Your task to perform on an android device: Open wifi settings Image 0: 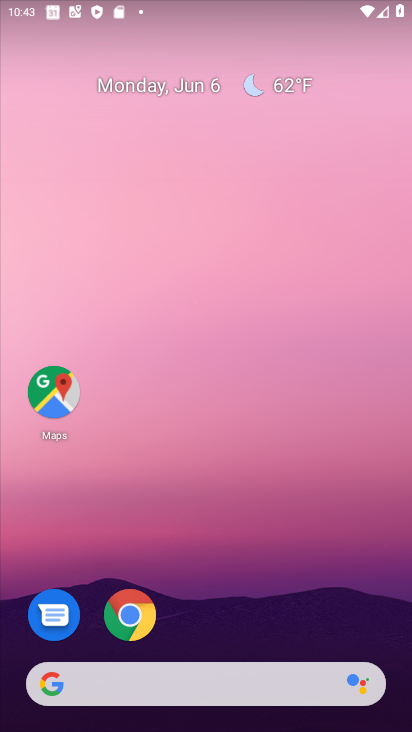
Step 0: drag from (200, 720) to (82, 39)
Your task to perform on an android device: Open wifi settings Image 1: 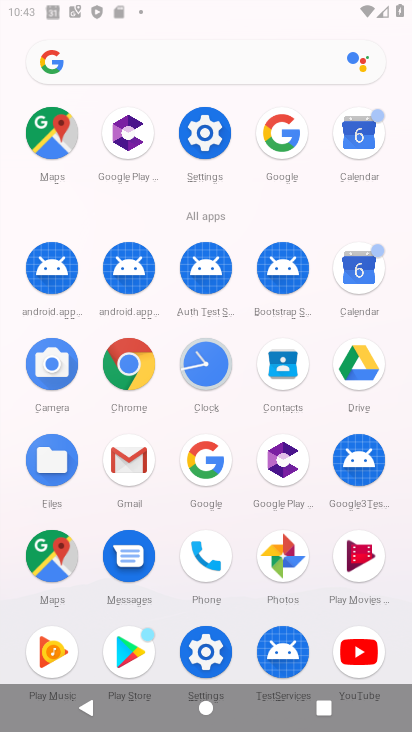
Step 1: drag from (206, 544) to (148, 116)
Your task to perform on an android device: Open wifi settings Image 2: 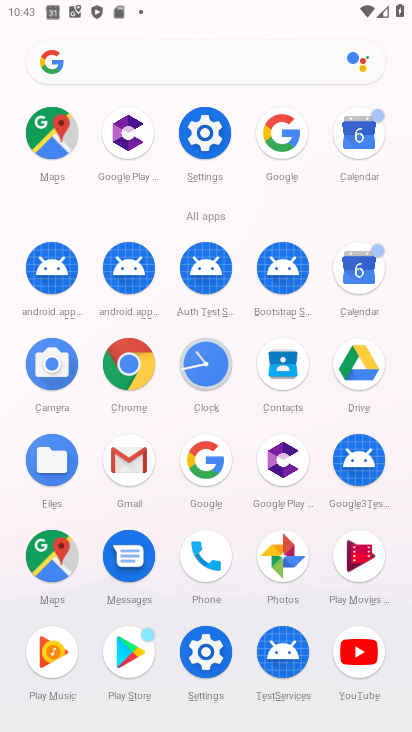
Step 2: click (212, 135)
Your task to perform on an android device: Open wifi settings Image 3: 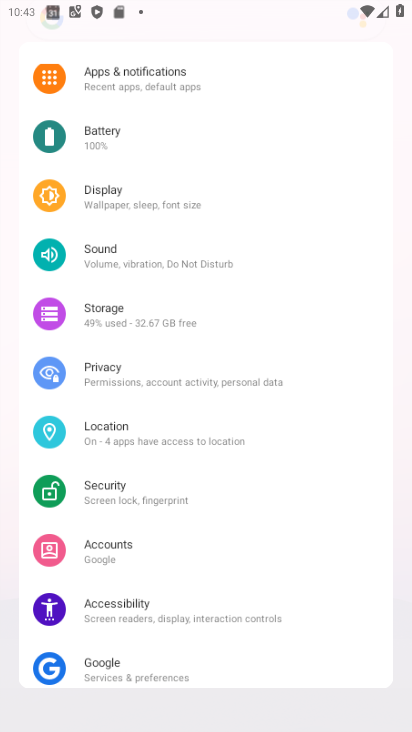
Step 3: click (217, 131)
Your task to perform on an android device: Open wifi settings Image 4: 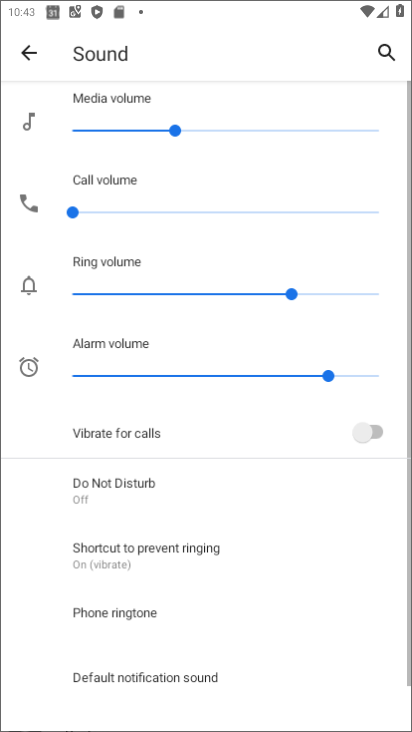
Step 4: drag from (171, 109) to (214, 577)
Your task to perform on an android device: Open wifi settings Image 5: 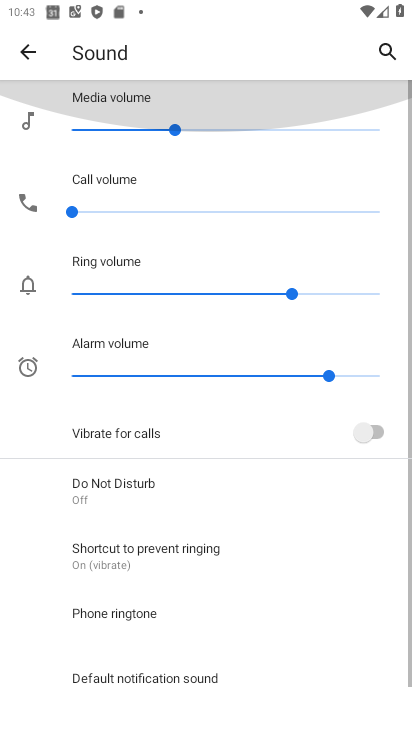
Step 5: drag from (169, 137) to (231, 544)
Your task to perform on an android device: Open wifi settings Image 6: 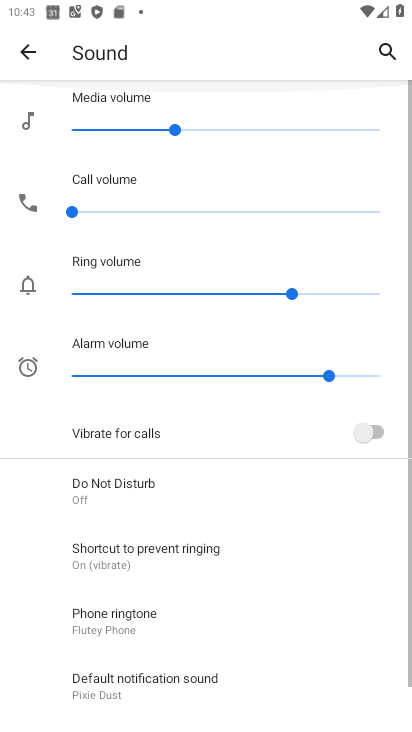
Step 6: click (4, 42)
Your task to perform on an android device: Open wifi settings Image 7: 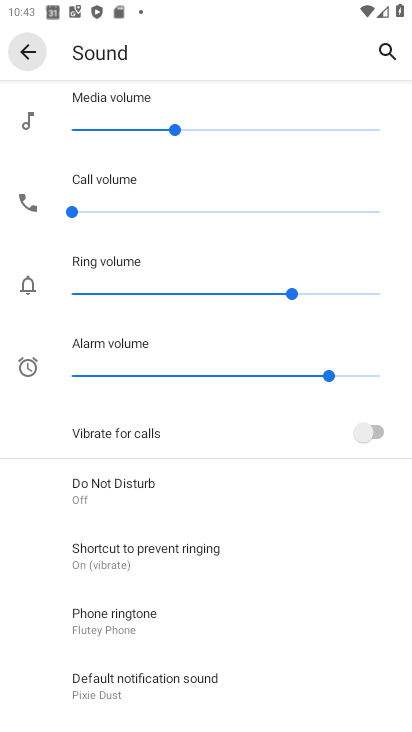
Step 7: click (13, 50)
Your task to perform on an android device: Open wifi settings Image 8: 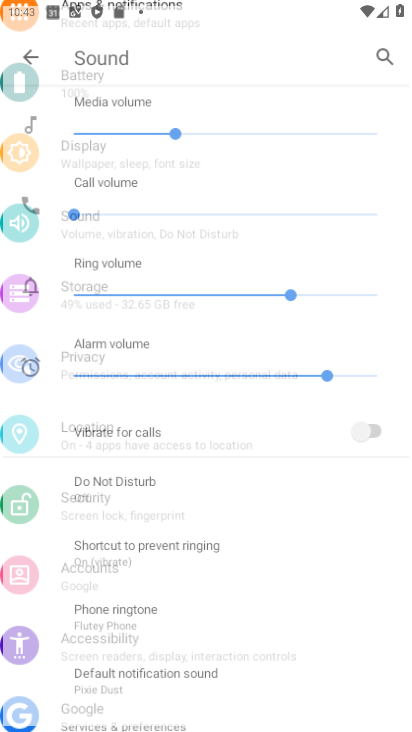
Step 8: click (17, 51)
Your task to perform on an android device: Open wifi settings Image 9: 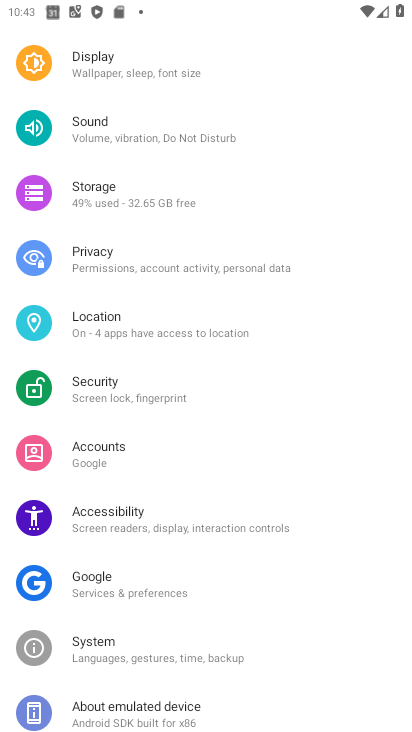
Step 9: click (17, 51)
Your task to perform on an android device: Open wifi settings Image 10: 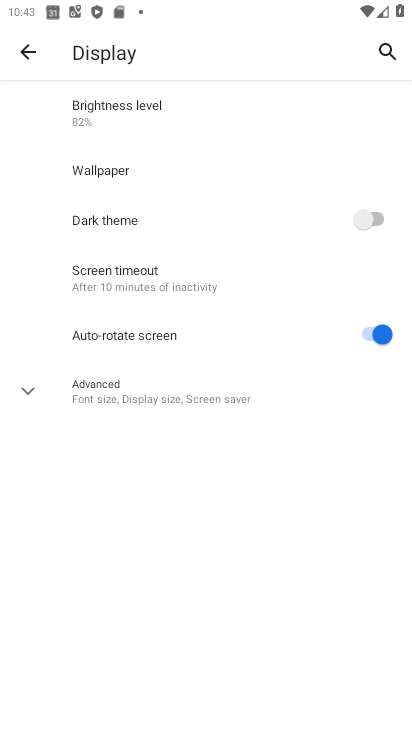
Step 10: click (22, 50)
Your task to perform on an android device: Open wifi settings Image 11: 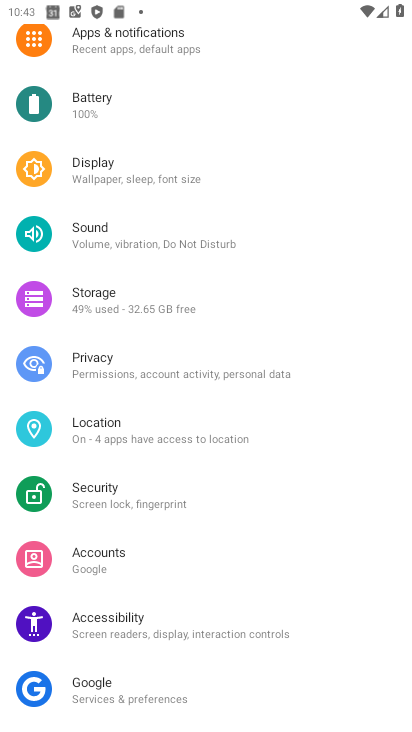
Step 11: drag from (82, 89) to (151, 310)
Your task to perform on an android device: Open wifi settings Image 12: 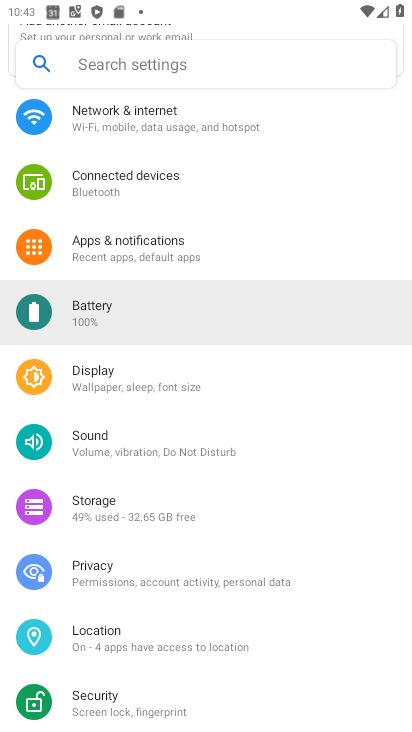
Step 12: drag from (153, 81) to (152, 425)
Your task to perform on an android device: Open wifi settings Image 13: 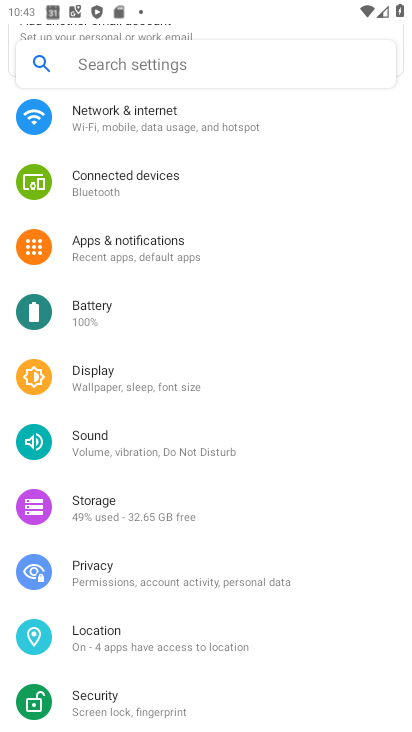
Step 13: click (138, 130)
Your task to perform on an android device: Open wifi settings Image 14: 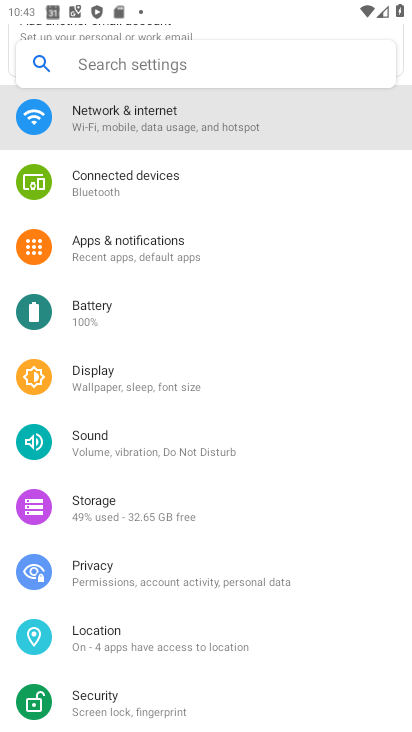
Step 14: click (138, 129)
Your task to perform on an android device: Open wifi settings Image 15: 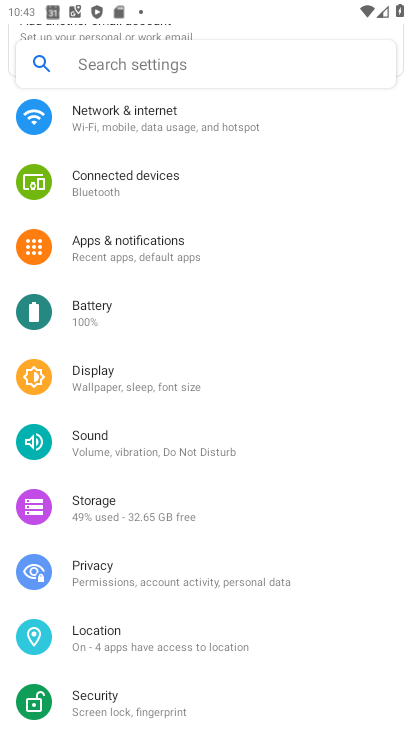
Step 15: click (138, 129)
Your task to perform on an android device: Open wifi settings Image 16: 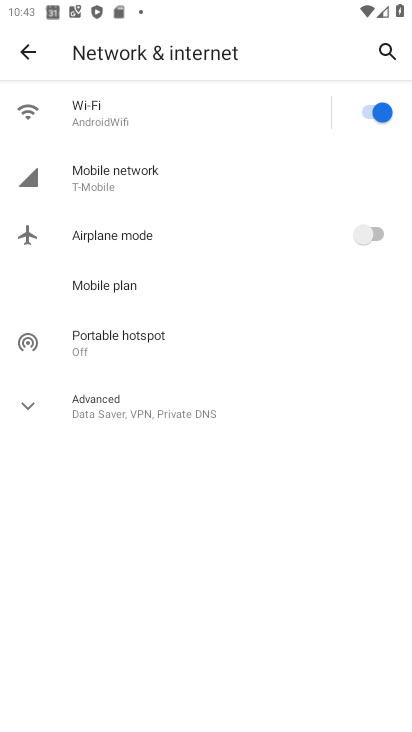
Step 16: task complete